Your task to perform on an android device: set default search engine in the chrome app Image 0: 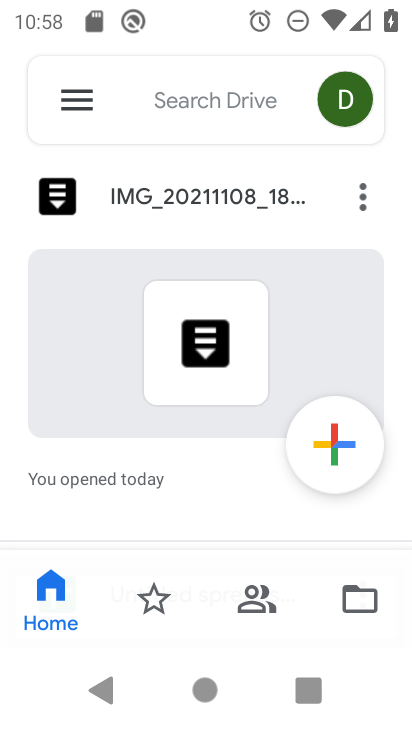
Step 0: press home button
Your task to perform on an android device: set default search engine in the chrome app Image 1: 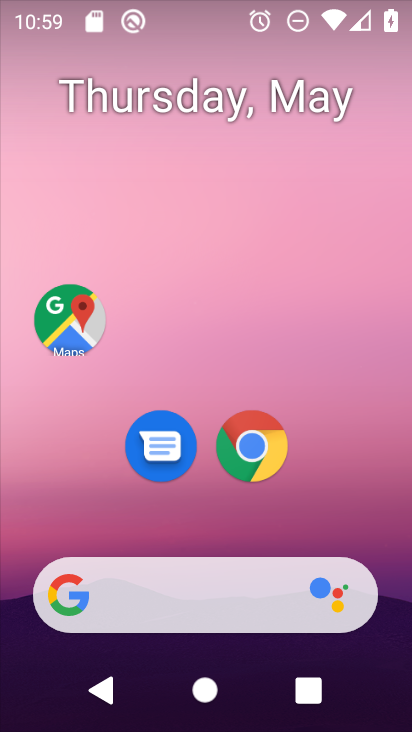
Step 1: drag from (191, 645) to (289, 251)
Your task to perform on an android device: set default search engine in the chrome app Image 2: 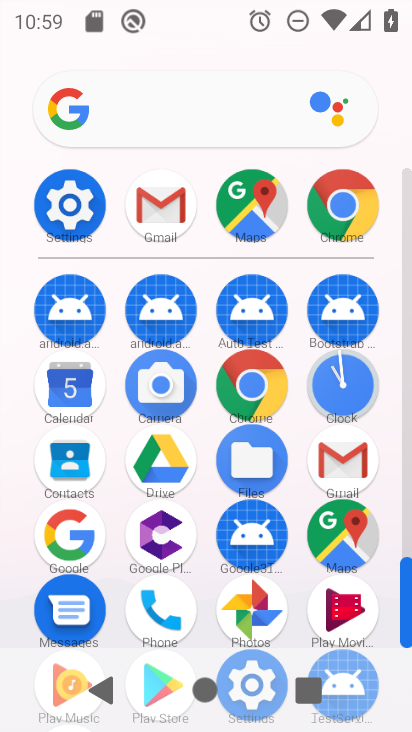
Step 2: click (365, 216)
Your task to perform on an android device: set default search engine in the chrome app Image 3: 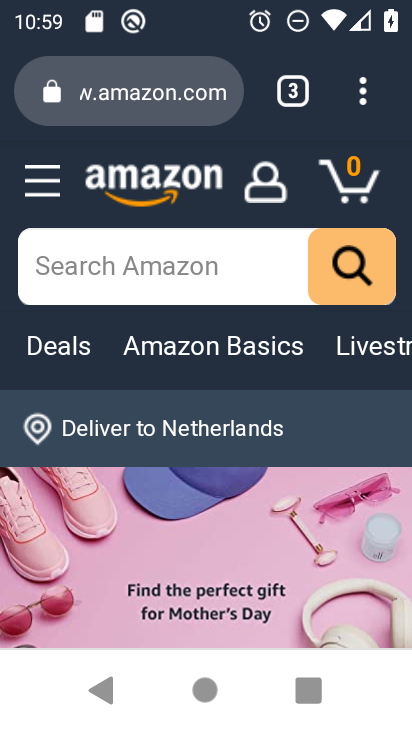
Step 3: click (349, 108)
Your task to perform on an android device: set default search engine in the chrome app Image 4: 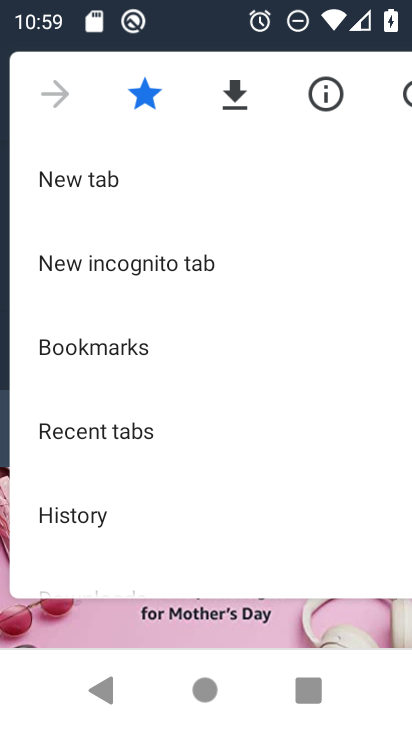
Step 4: drag from (119, 533) to (265, 132)
Your task to perform on an android device: set default search engine in the chrome app Image 5: 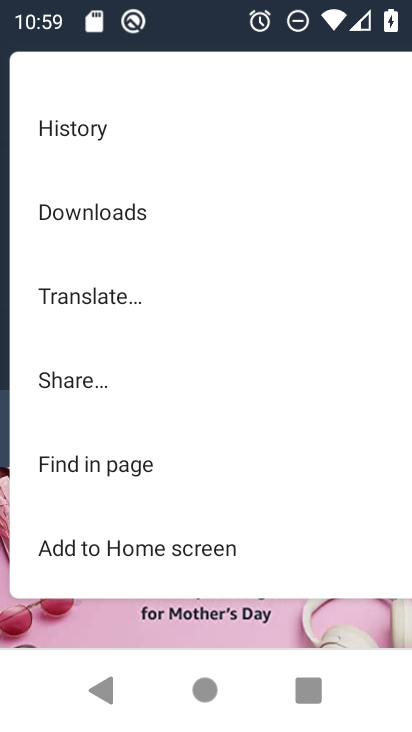
Step 5: drag from (140, 504) to (251, 213)
Your task to perform on an android device: set default search engine in the chrome app Image 6: 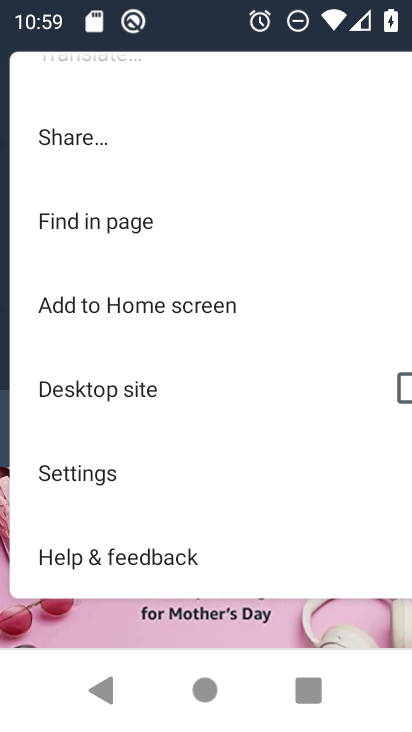
Step 6: click (139, 479)
Your task to perform on an android device: set default search engine in the chrome app Image 7: 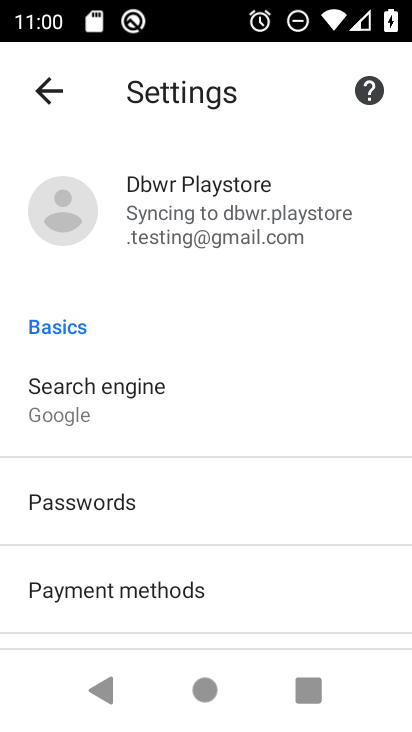
Step 7: click (116, 412)
Your task to perform on an android device: set default search engine in the chrome app Image 8: 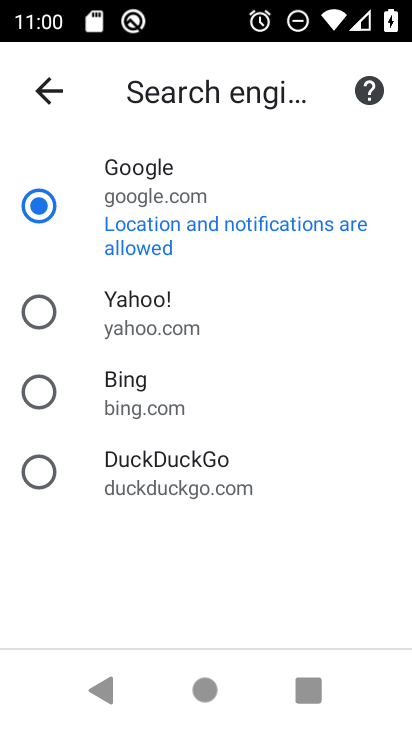
Step 8: task complete